Your task to perform on an android device: Do I have any events tomorrow? Image 0: 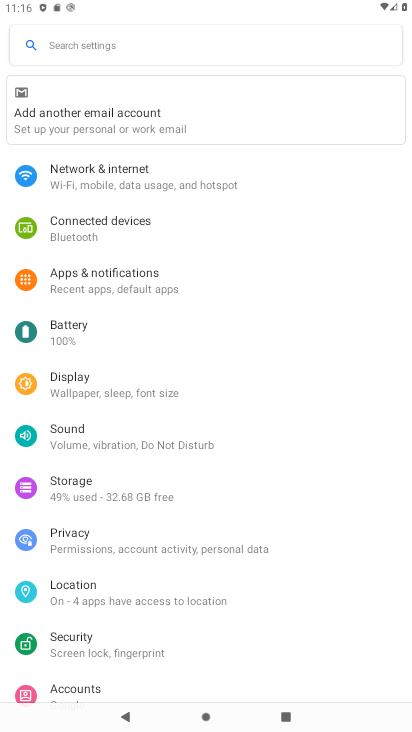
Step 0: press home button
Your task to perform on an android device: Do I have any events tomorrow? Image 1: 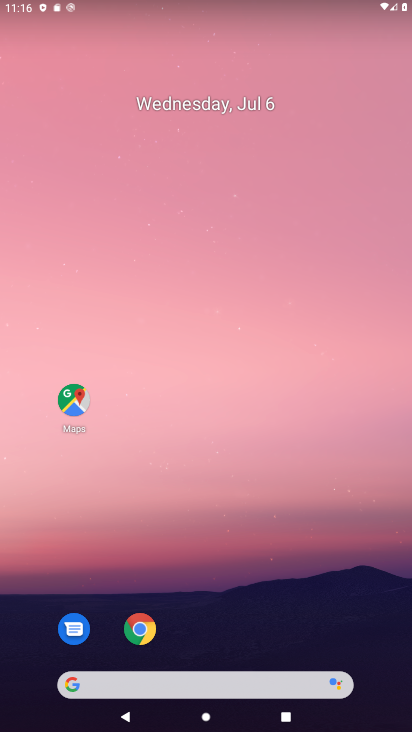
Step 1: drag from (358, 634) to (377, 109)
Your task to perform on an android device: Do I have any events tomorrow? Image 2: 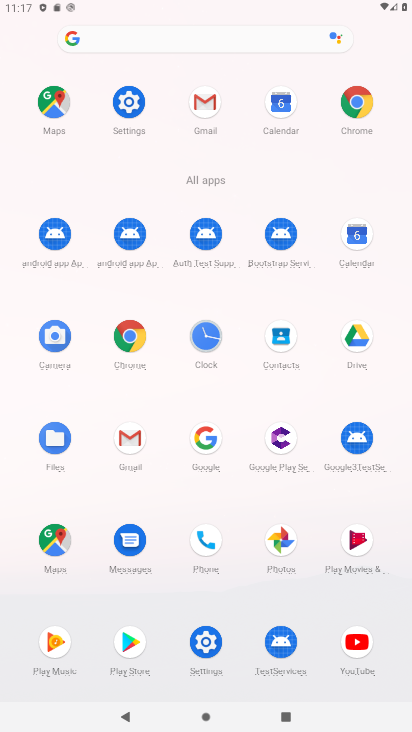
Step 2: click (360, 248)
Your task to perform on an android device: Do I have any events tomorrow? Image 3: 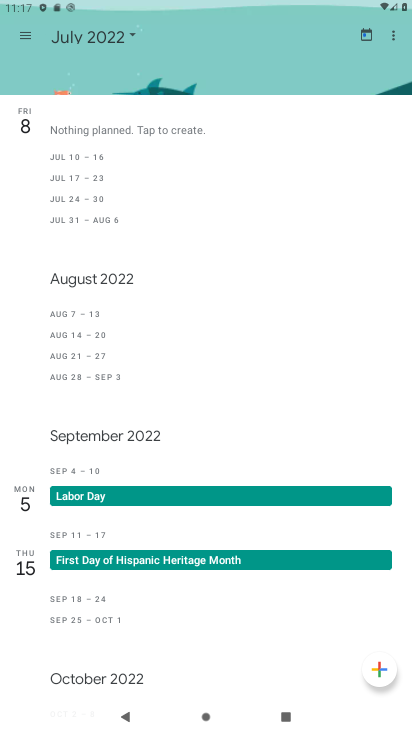
Step 3: task complete